Your task to perform on an android device: add a label to a message in the gmail app Image 0: 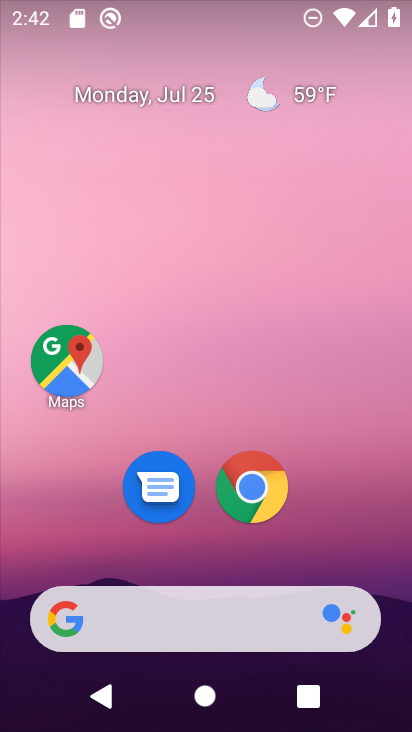
Step 0: drag from (136, 552) to (237, 2)
Your task to perform on an android device: add a label to a message in the gmail app Image 1: 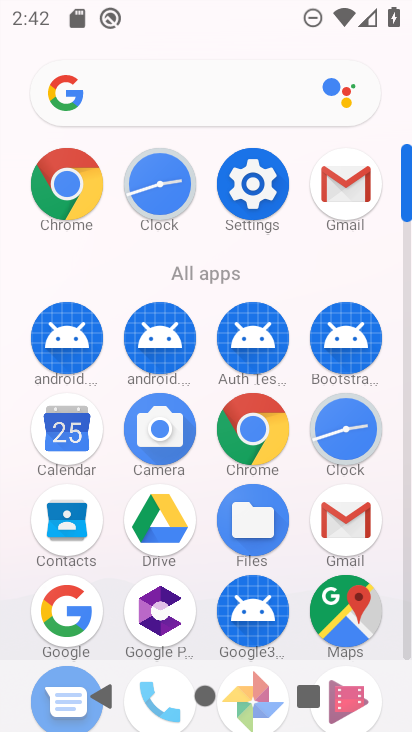
Step 1: click (358, 180)
Your task to perform on an android device: add a label to a message in the gmail app Image 2: 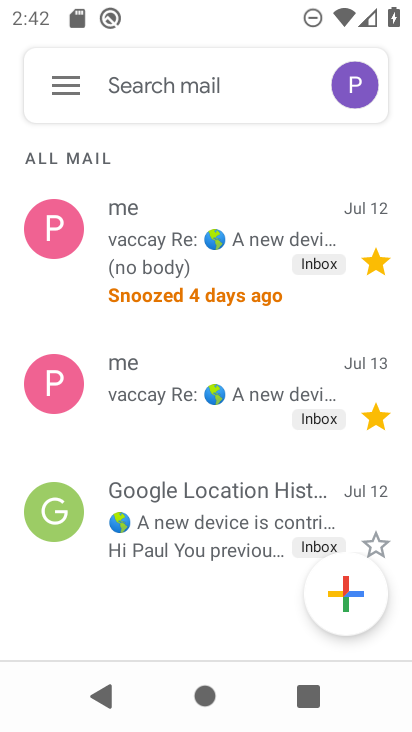
Step 2: click (172, 516)
Your task to perform on an android device: add a label to a message in the gmail app Image 3: 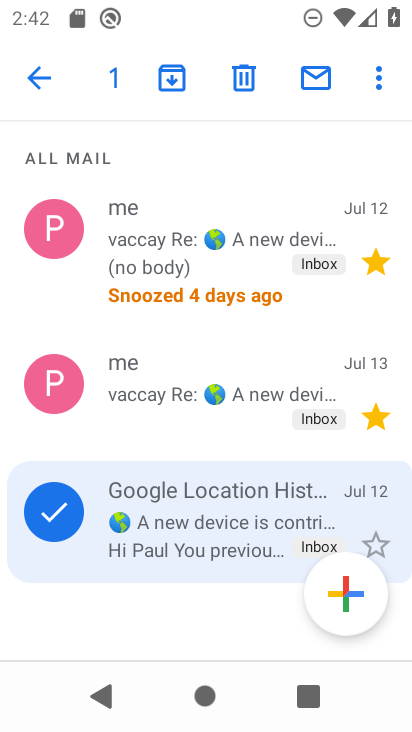
Step 3: click (379, 62)
Your task to perform on an android device: add a label to a message in the gmail app Image 4: 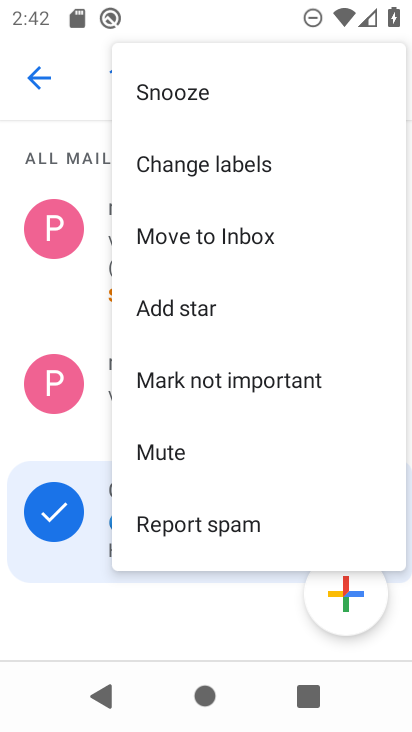
Step 4: click (245, 164)
Your task to perform on an android device: add a label to a message in the gmail app Image 5: 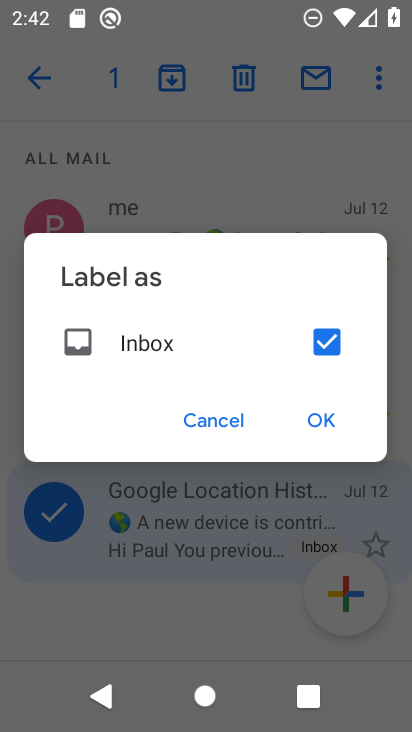
Step 5: click (323, 424)
Your task to perform on an android device: add a label to a message in the gmail app Image 6: 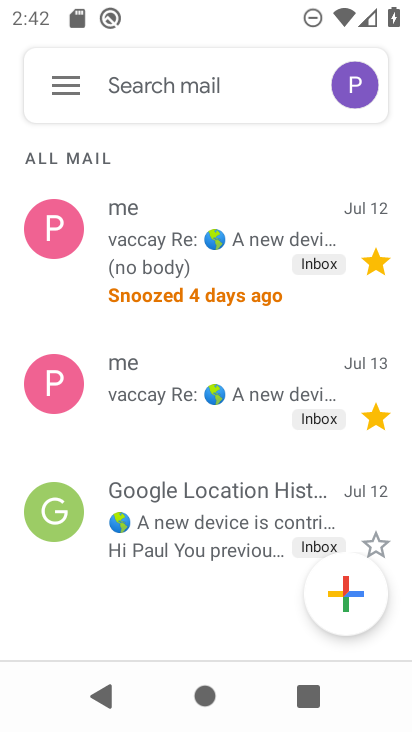
Step 6: task complete